Your task to perform on an android device: open chrome and create a bookmark for the current page Image 0: 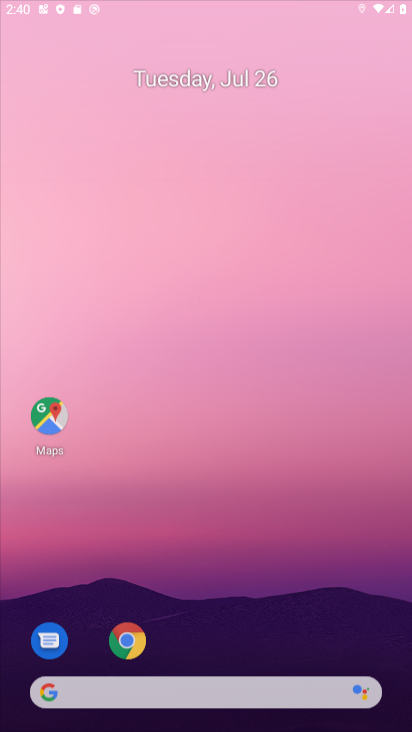
Step 0: press home button
Your task to perform on an android device: open chrome and create a bookmark for the current page Image 1: 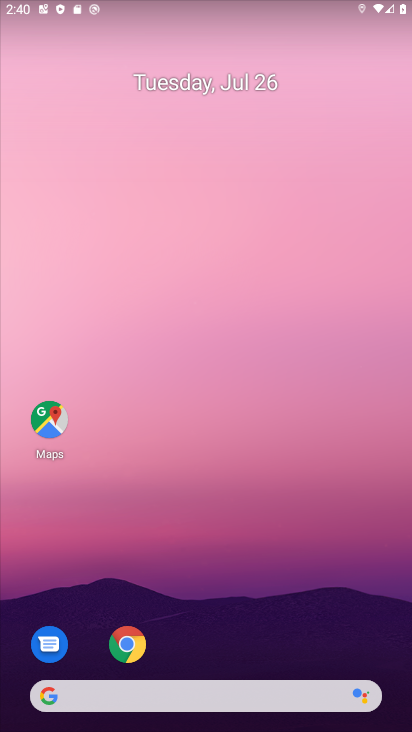
Step 1: click (137, 643)
Your task to perform on an android device: open chrome and create a bookmark for the current page Image 2: 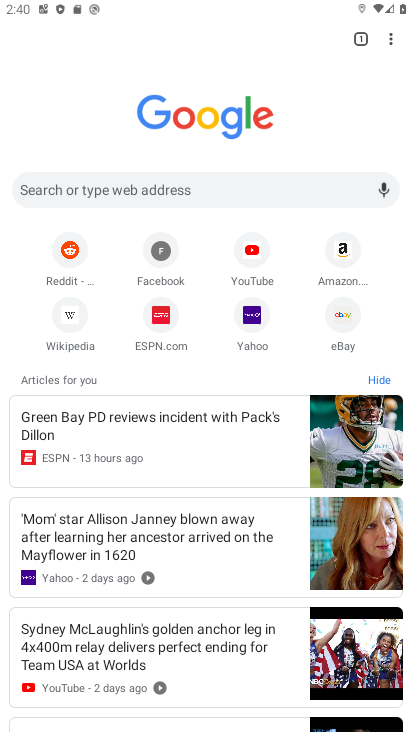
Step 2: click (388, 36)
Your task to perform on an android device: open chrome and create a bookmark for the current page Image 3: 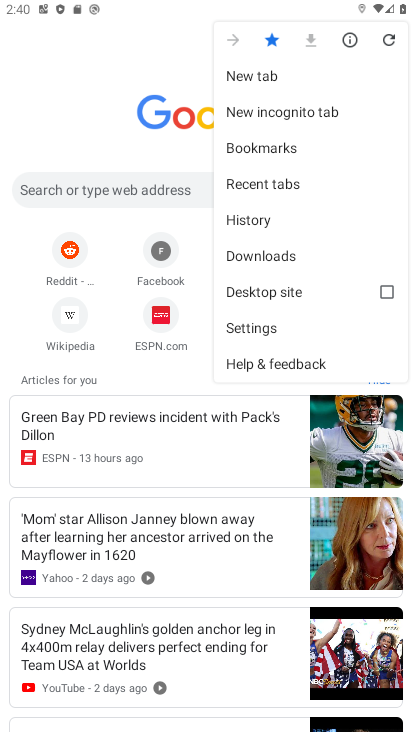
Step 3: task complete